Your task to perform on an android device: set the timer Image 0: 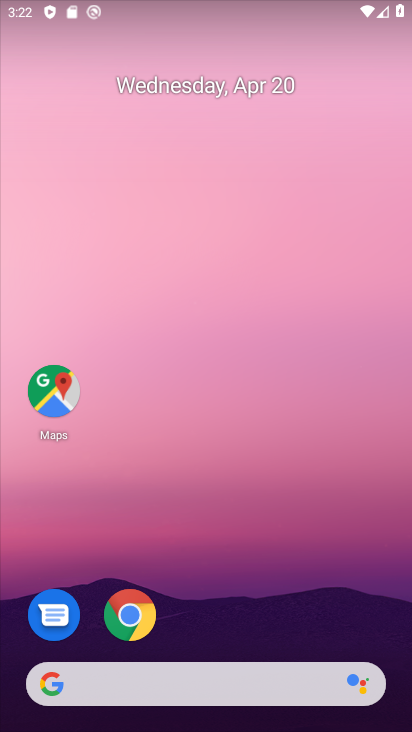
Step 0: drag from (290, 509) to (222, 84)
Your task to perform on an android device: set the timer Image 1: 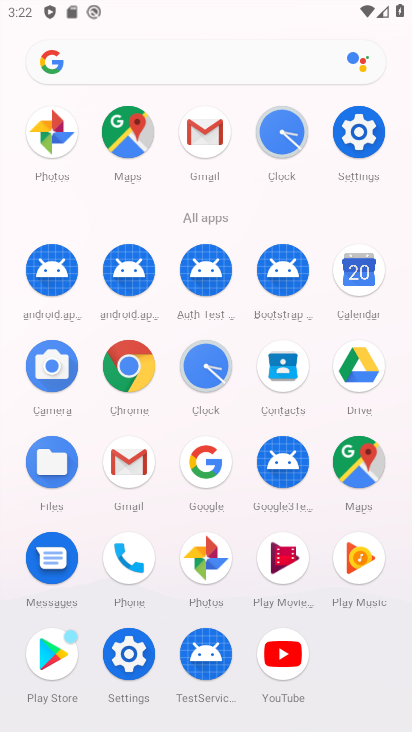
Step 1: click (278, 128)
Your task to perform on an android device: set the timer Image 2: 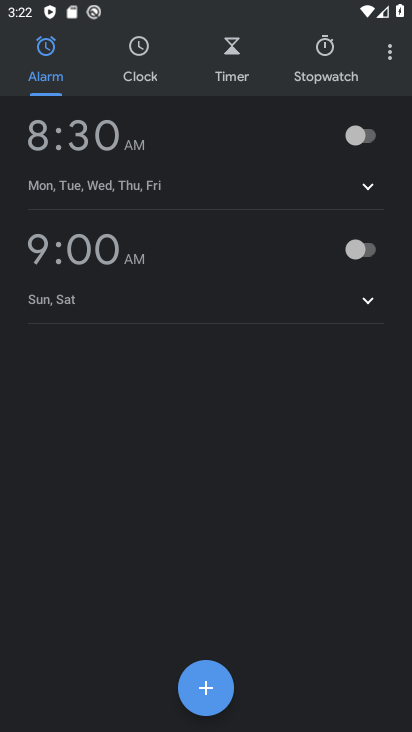
Step 2: click (223, 60)
Your task to perform on an android device: set the timer Image 3: 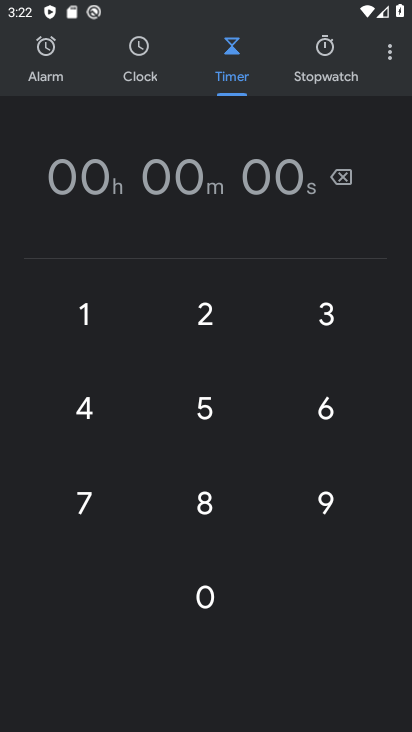
Step 3: click (213, 308)
Your task to perform on an android device: set the timer Image 4: 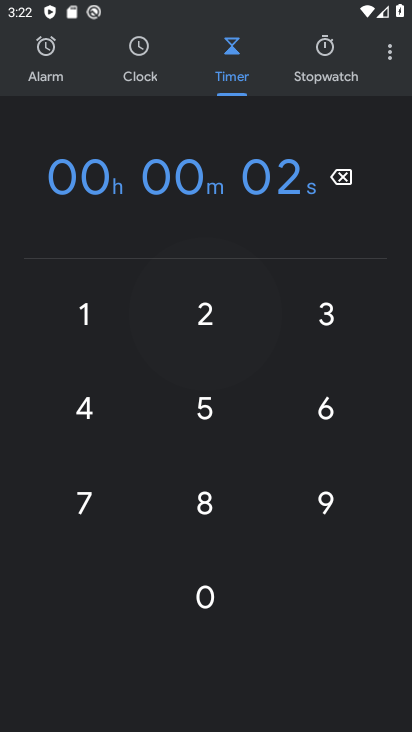
Step 4: click (324, 308)
Your task to perform on an android device: set the timer Image 5: 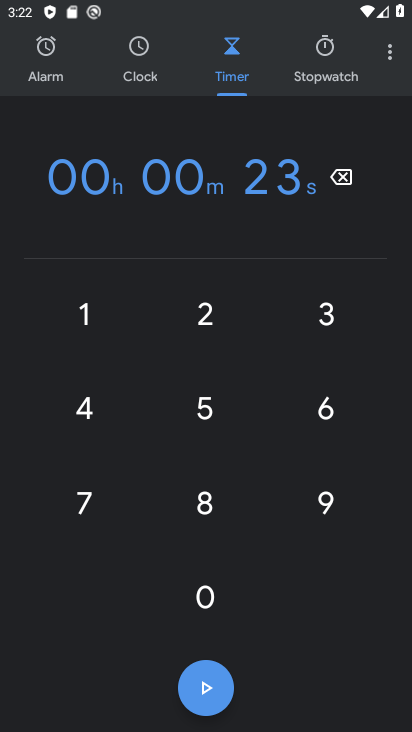
Step 5: click (207, 409)
Your task to perform on an android device: set the timer Image 6: 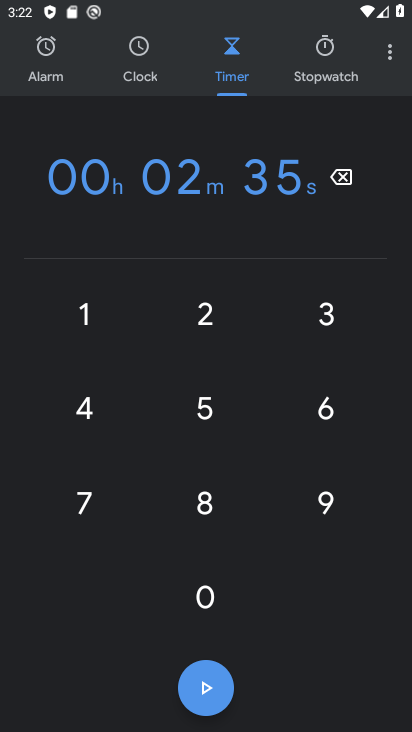
Step 6: click (190, 418)
Your task to perform on an android device: set the timer Image 7: 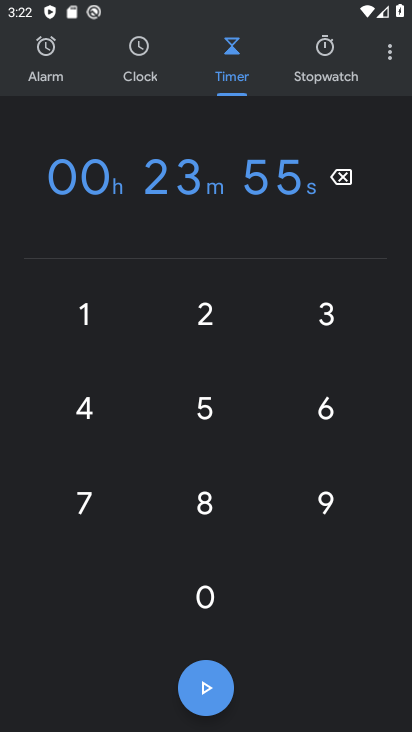
Step 7: click (327, 406)
Your task to perform on an android device: set the timer Image 8: 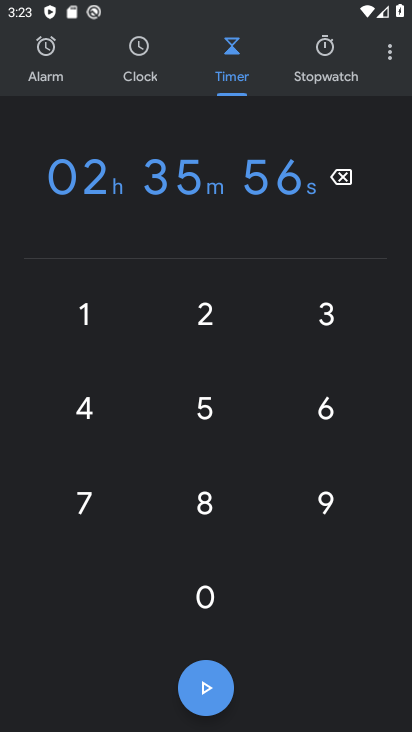
Step 8: click (206, 688)
Your task to perform on an android device: set the timer Image 9: 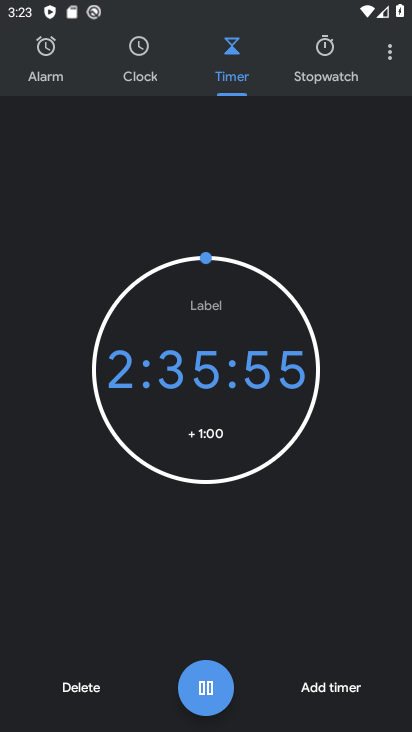
Step 9: task complete